Your task to perform on an android device: toggle airplane mode Image 0: 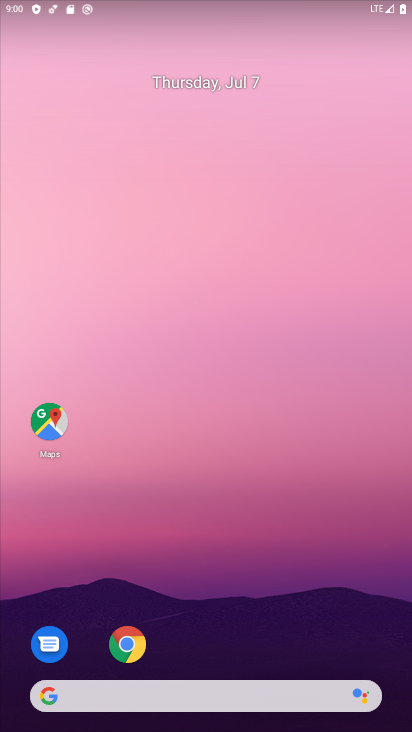
Step 0: drag from (297, 601) to (270, 170)
Your task to perform on an android device: toggle airplane mode Image 1: 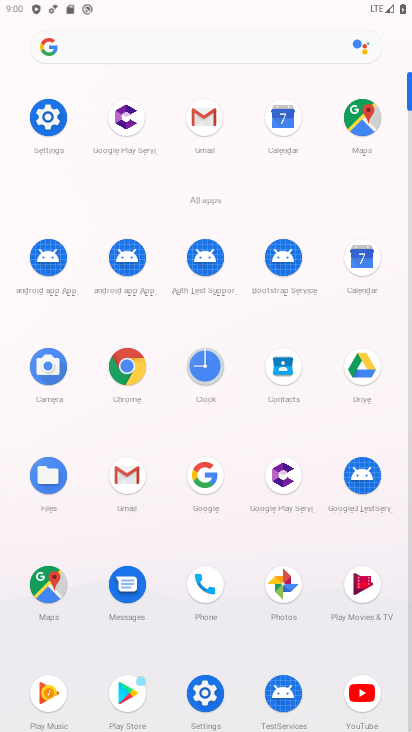
Step 1: click (47, 112)
Your task to perform on an android device: toggle airplane mode Image 2: 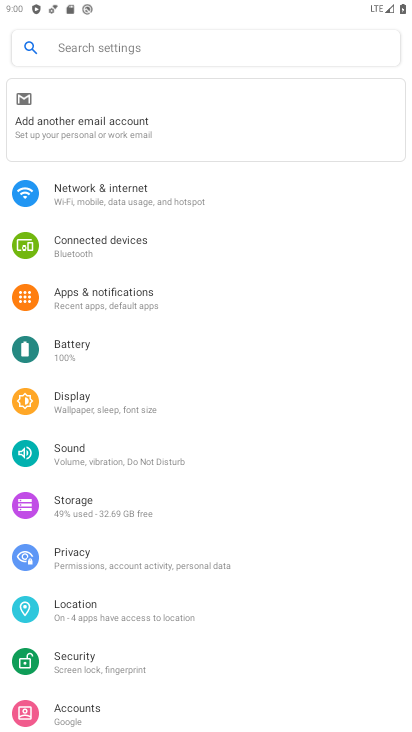
Step 2: click (143, 199)
Your task to perform on an android device: toggle airplane mode Image 3: 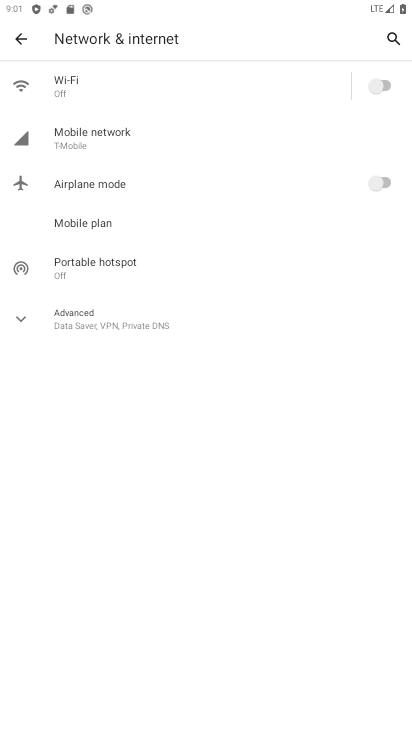
Step 3: click (386, 184)
Your task to perform on an android device: toggle airplane mode Image 4: 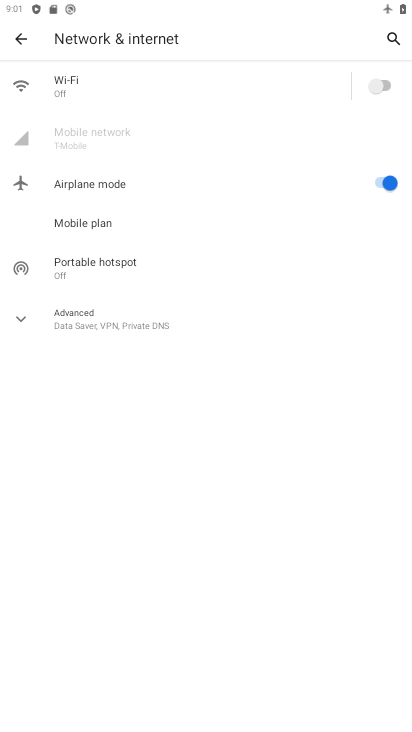
Step 4: task complete